Your task to perform on an android device: turn on wifi Image 0: 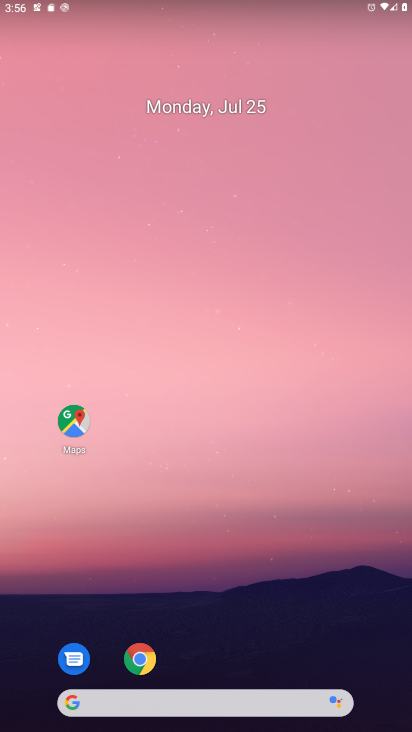
Step 0: drag from (191, 640) to (219, 155)
Your task to perform on an android device: turn on wifi Image 1: 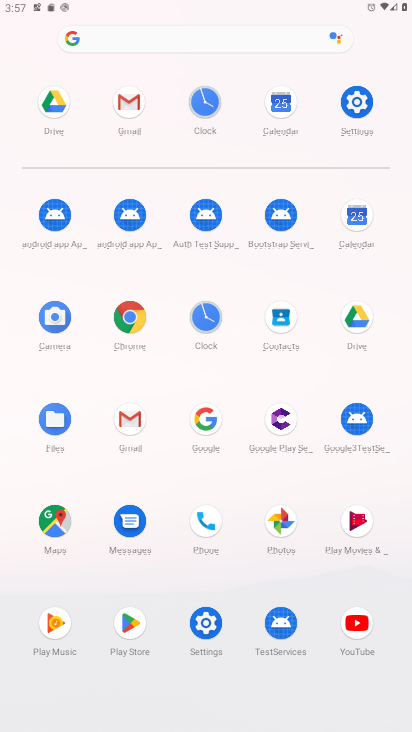
Step 1: click (354, 115)
Your task to perform on an android device: turn on wifi Image 2: 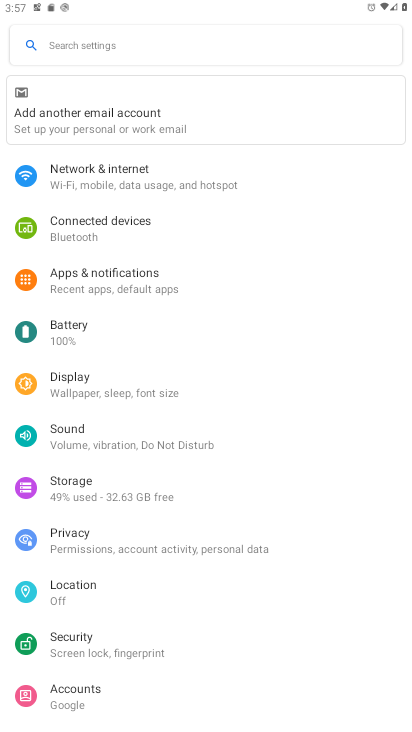
Step 2: click (139, 186)
Your task to perform on an android device: turn on wifi Image 3: 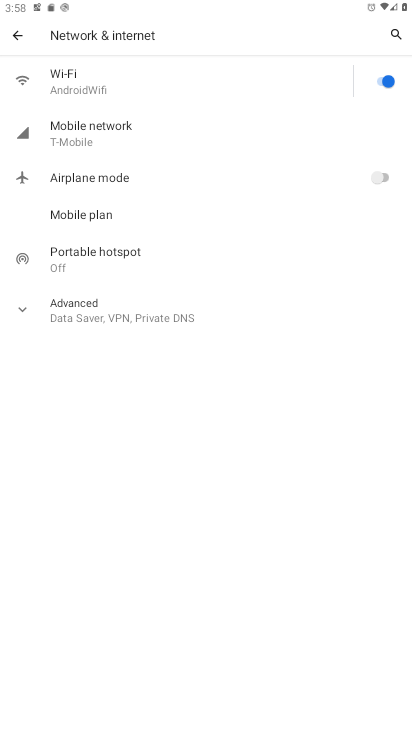
Step 3: task complete